Your task to perform on an android device: move an email to a new category in the gmail app Image 0: 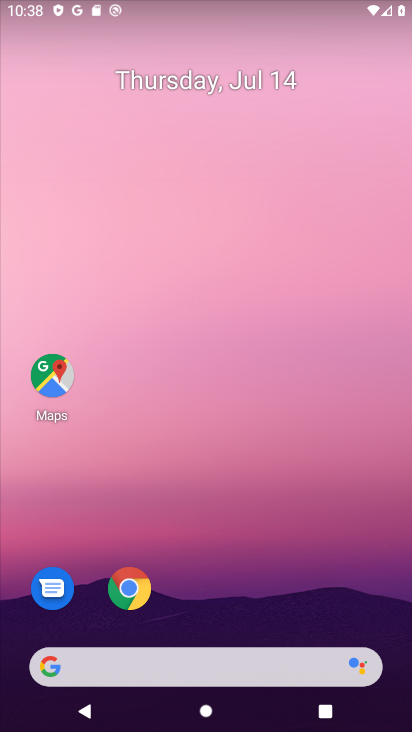
Step 0: press home button
Your task to perform on an android device: move an email to a new category in the gmail app Image 1: 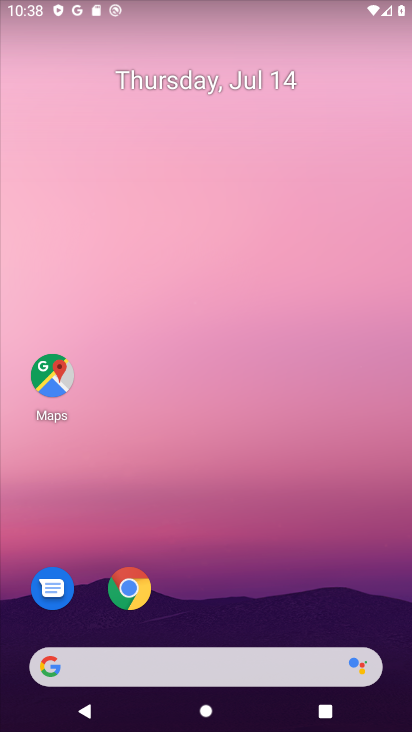
Step 1: drag from (243, 660) to (322, 91)
Your task to perform on an android device: move an email to a new category in the gmail app Image 2: 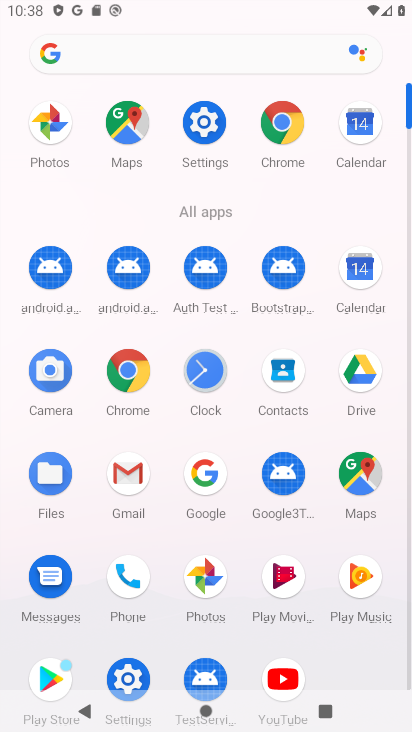
Step 2: click (149, 472)
Your task to perform on an android device: move an email to a new category in the gmail app Image 3: 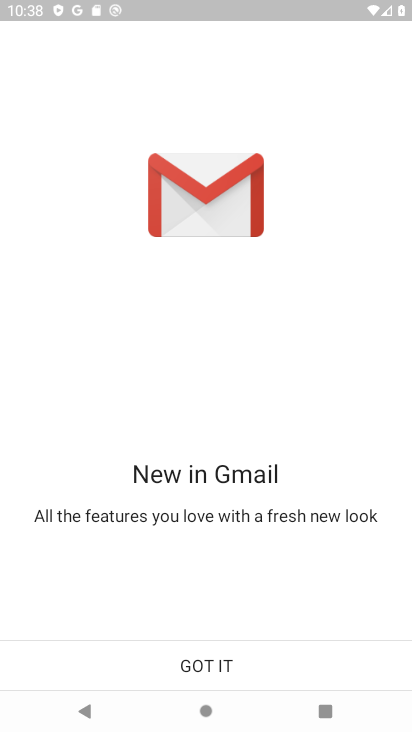
Step 3: click (229, 668)
Your task to perform on an android device: move an email to a new category in the gmail app Image 4: 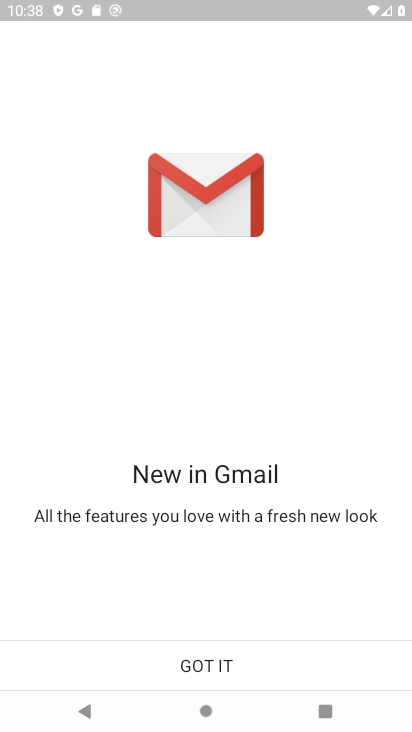
Step 4: click (229, 668)
Your task to perform on an android device: move an email to a new category in the gmail app Image 5: 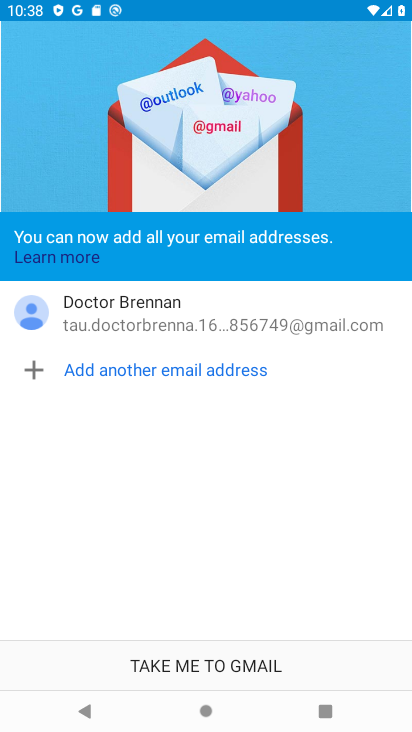
Step 5: click (229, 668)
Your task to perform on an android device: move an email to a new category in the gmail app Image 6: 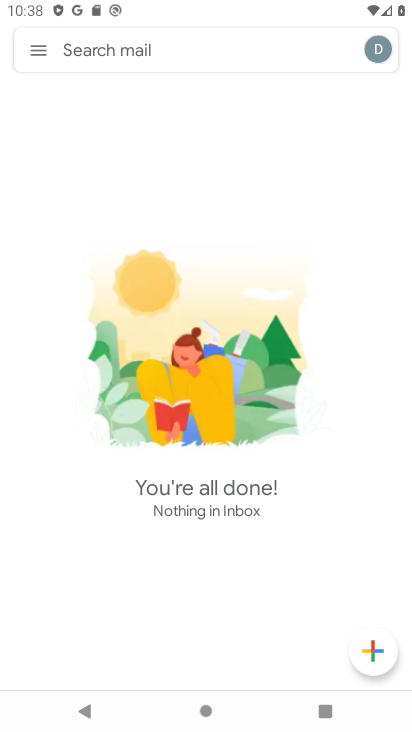
Step 6: task complete